Your task to perform on an android device: Open maps Image 0: 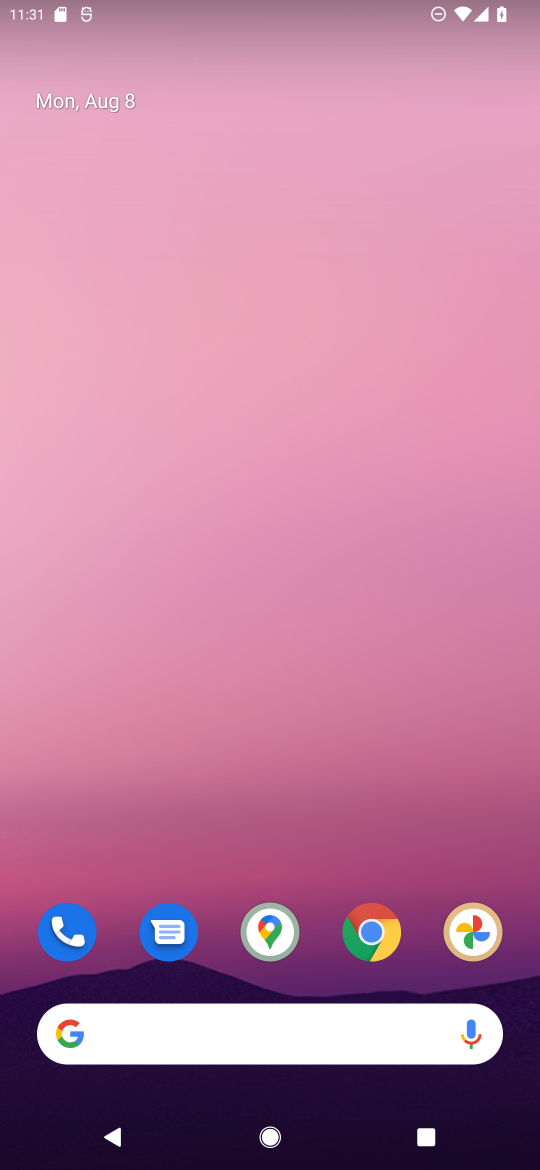
Step 0: click (273, 930)
Your task to perform on an android device: Open maps Image 1: 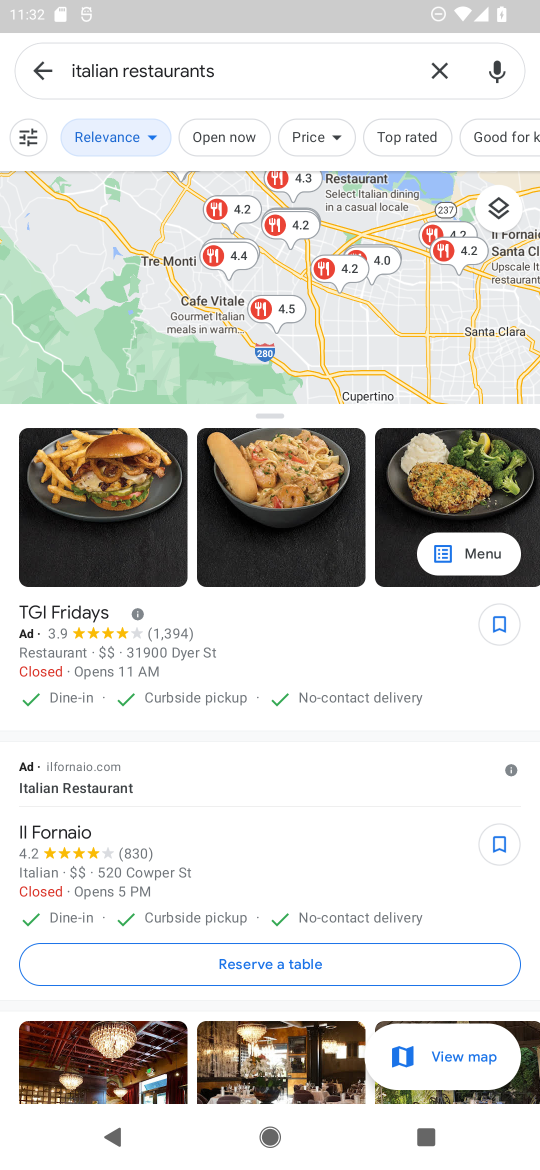
Step 1: task complete